Your task to perform on an android device: What's on my calendar tomorrow? Image 0: 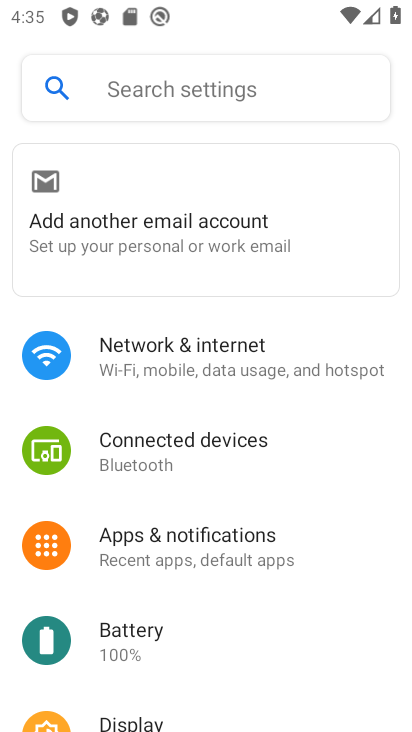
Step 0: press home button
Your task to perform on an android device: What's on my calendar tomorrow? Image 1: 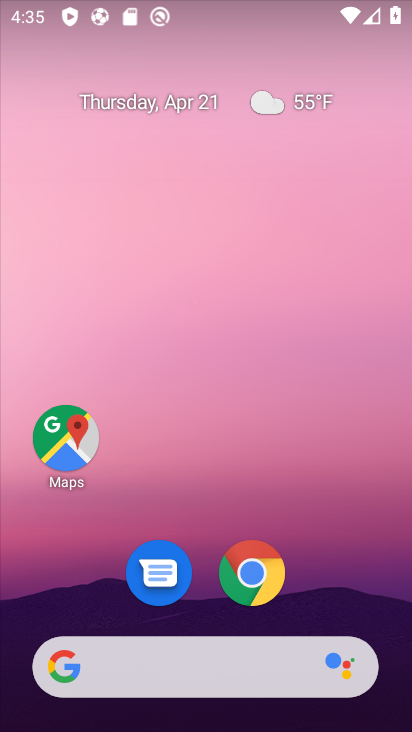
Step 1: drag from (384, 602) to (264, 170)
Your task to perform on an android device: What's on my calendar tomorrow? Image 2: 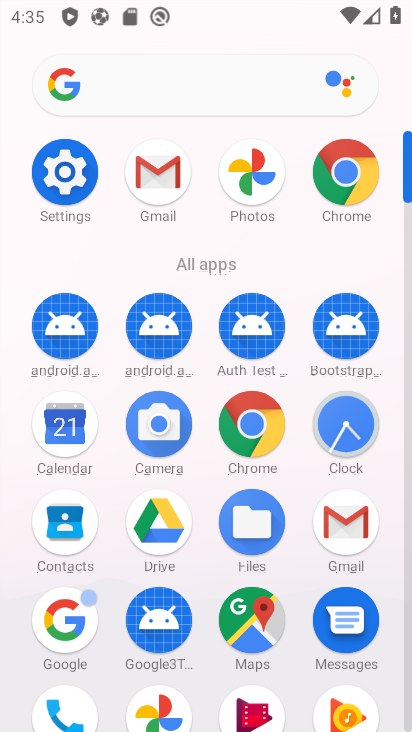
Step 2: click (73, 410)
Your task to perform on an android device: What's on my calendar tomorrow? Image 3: 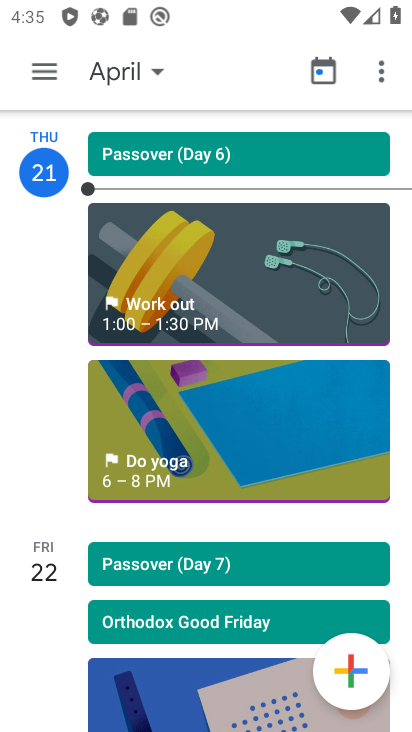
Step 3: click (158, 81)
Your task to perform on an android device: What's on my calendar tomorrow? Image 4: 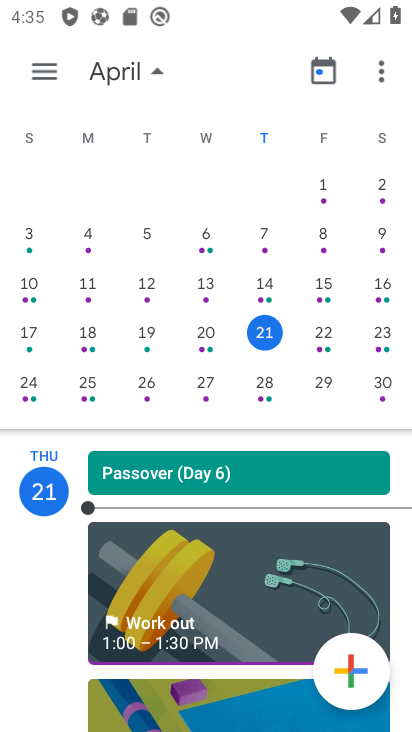
Step 4: click (331, 343)
Your task to perform on an android device: What's on my calendar tomorrow? Image 5: 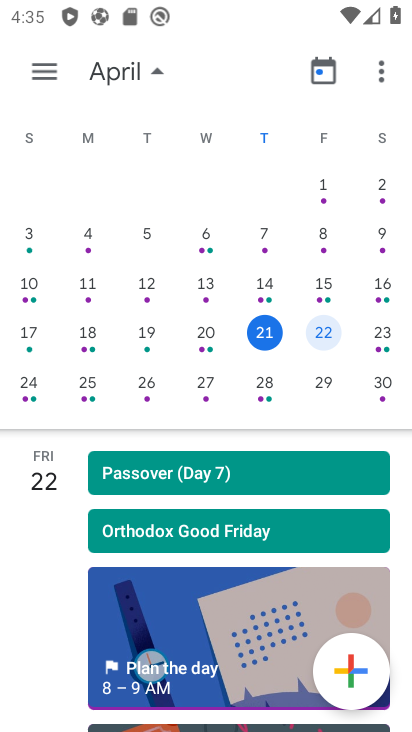
Step 5: click (152, 73)
Your task to perform on an android device: What's on my calendar tomorrow? Image 6: 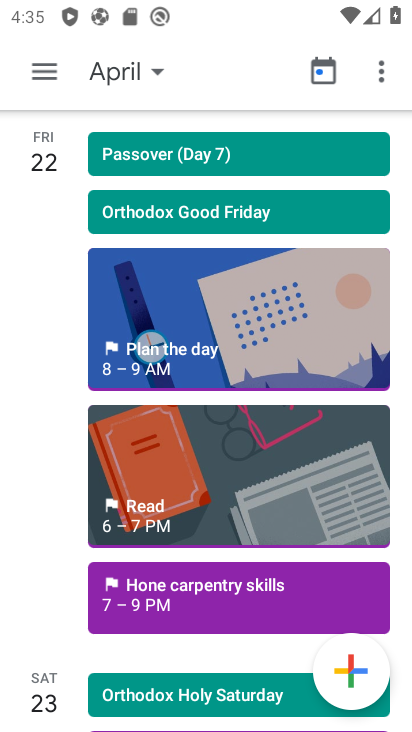
Step 6: task complete